Your task to perform on an android device: turn off javascript in the chrome app Image 0: 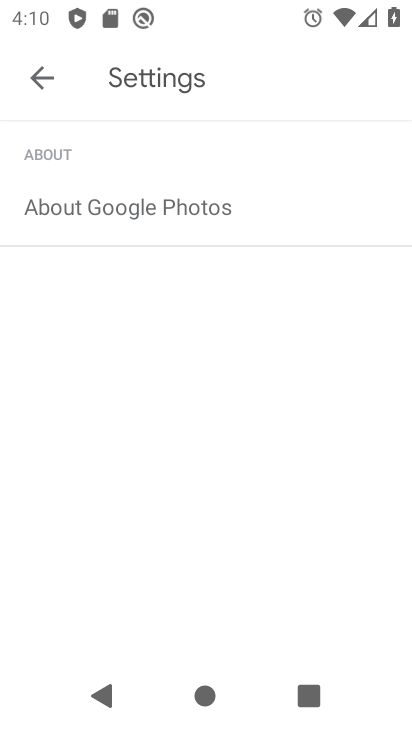
Step 0: drag from (201, 590) to (187, 6)
Your task to perform on an android device: turn off javascript in the chrome app Image 1: 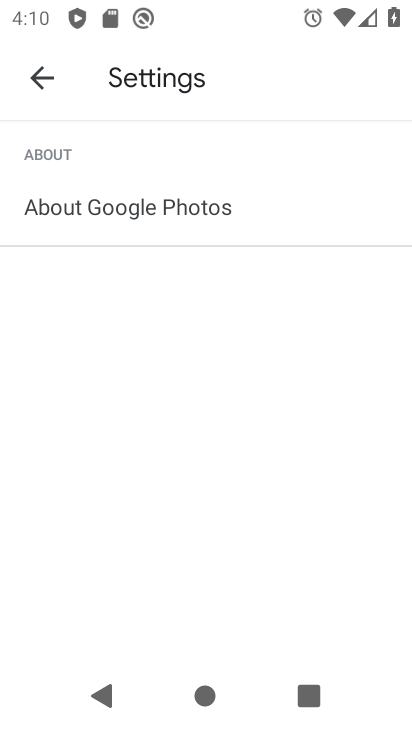
Step 1: press home button
Your task to perform on an android device: turn off javascript in the chrome app Image 2: 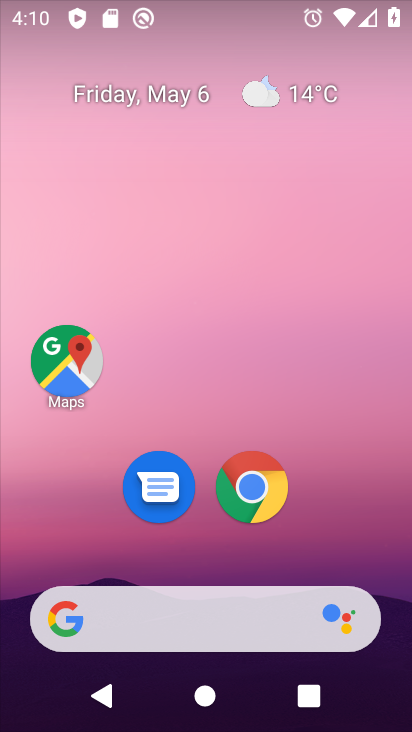
Step 2: click (286, 483)
Your task to perform on an android device: turn off javascript in the chrome app Image 3: 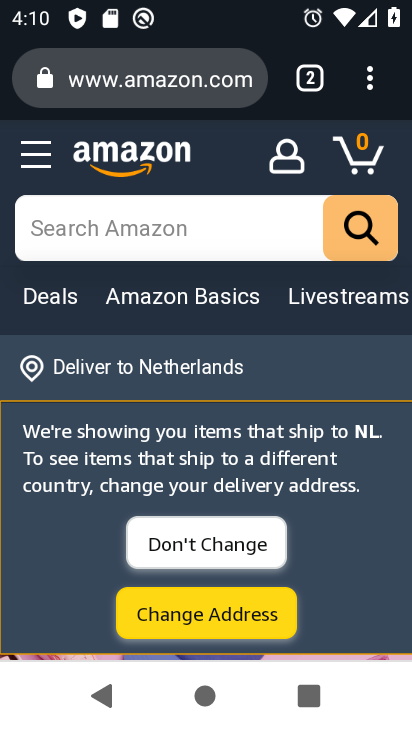
Step 3: click (376, 71)
Your task to perform on an android device: turn off javascript in the chrome app Image 4: 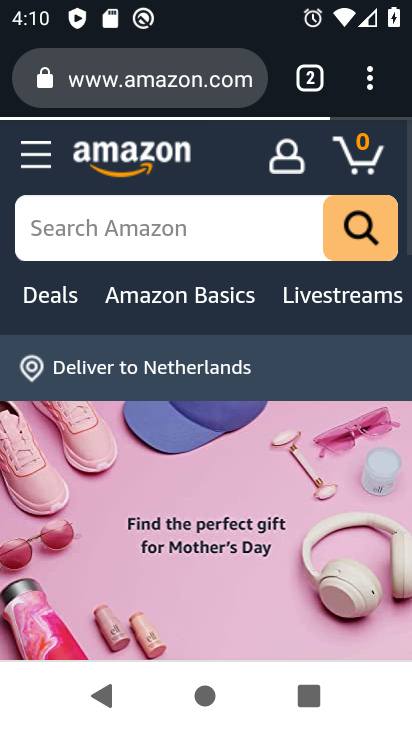
Step 4: drag from (367, 76) to (91, 539)
Your task to perform on an android device: turn off javascript in the chrome app Image 5: 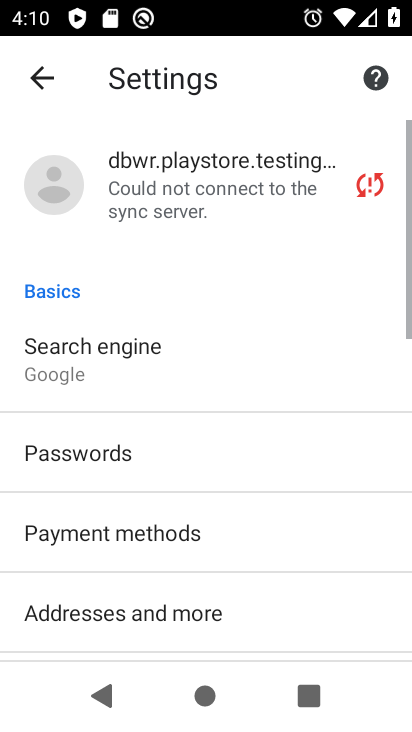
Step 5: drag from (128, 543) to (88, 7)
Your task to perform on an android device: turn off javascript in the chrome app Image 6: 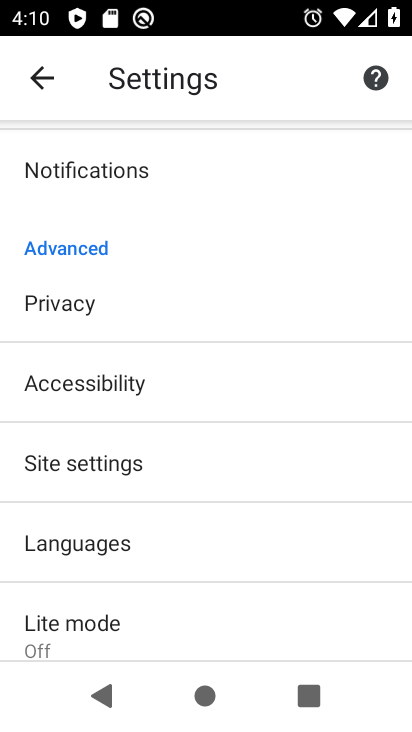
Step 6: click (96, 480)
Your task to perform on an android device: turn off javascript in the chrome app Image 7: 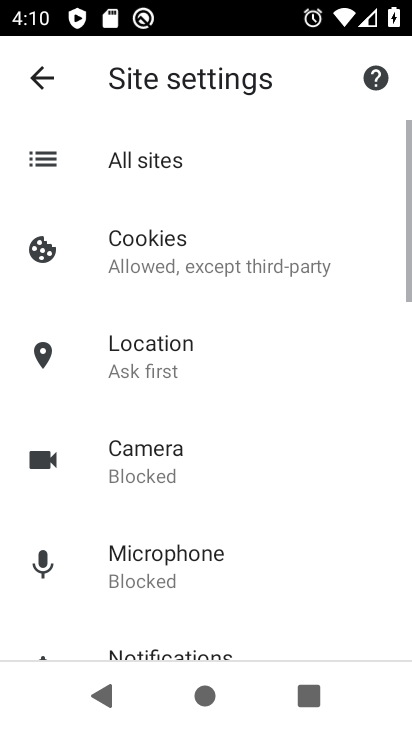
Step 7: drag from (138, 591) to (111, 101)
Your task to perform on an android device: turn off javascript in the chrome app Image 8: 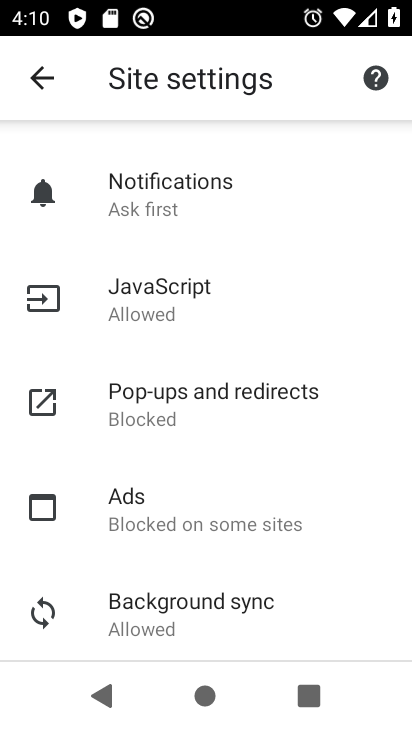
Step 8: drag from (154, 570) to (131, 383)
Your task to perform on an android device: turn off javascript in the chrome app Image 9: 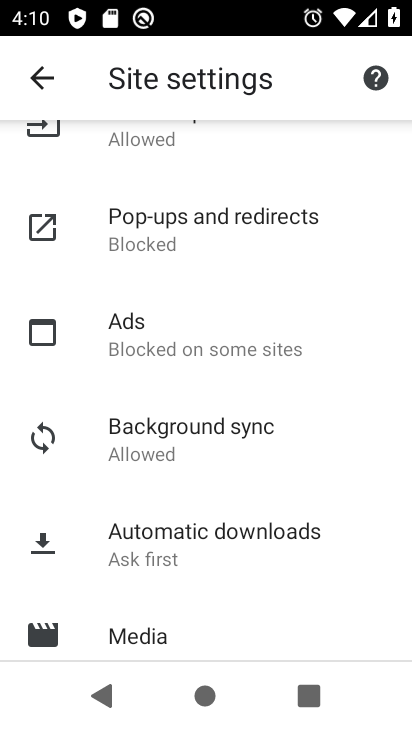
Step 9: click (130, 163)
Your task to perform on an android device: turn off javascript in the chrome app Image 10: 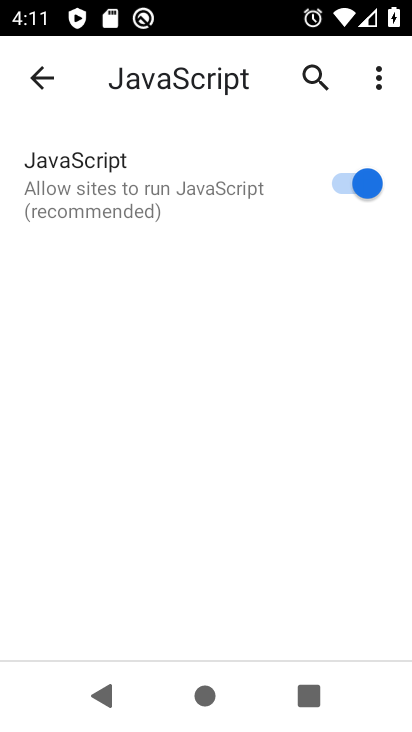
Step 10: click (330, 179)
Your task to perform on an android device: turn off javascript in the chrome app Image 11: 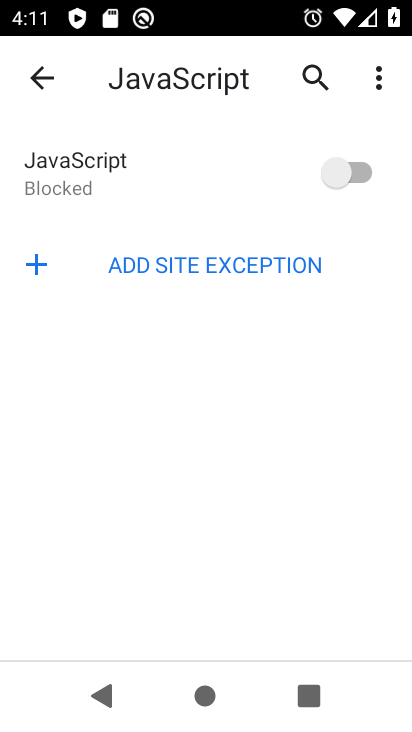
Step 11: task complete